Your task to perform on an android device: Open internet settings Image 0: 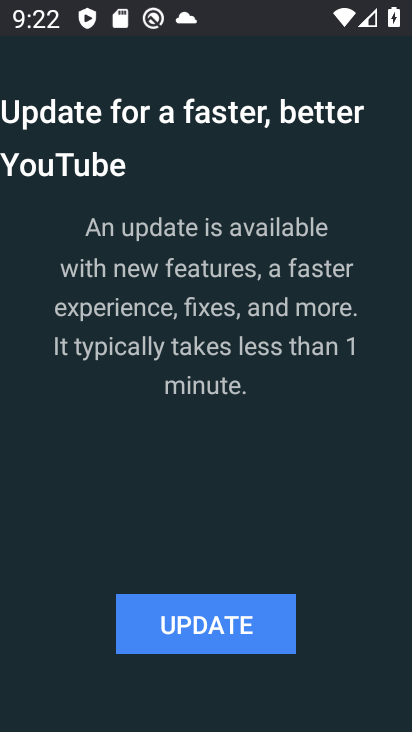
Step 0: press home button
Your task to perform on an android device: Open internet settings Image 1: 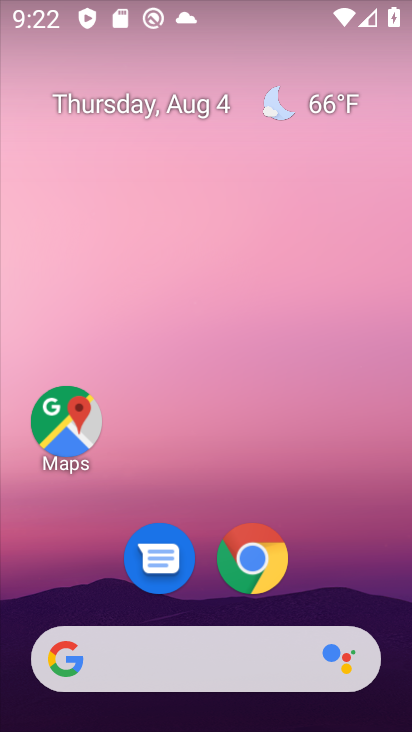
Step 1: drag from (351, 553) to (364, 166)
Your task to perform on an android device: Open internet settings Image 2: 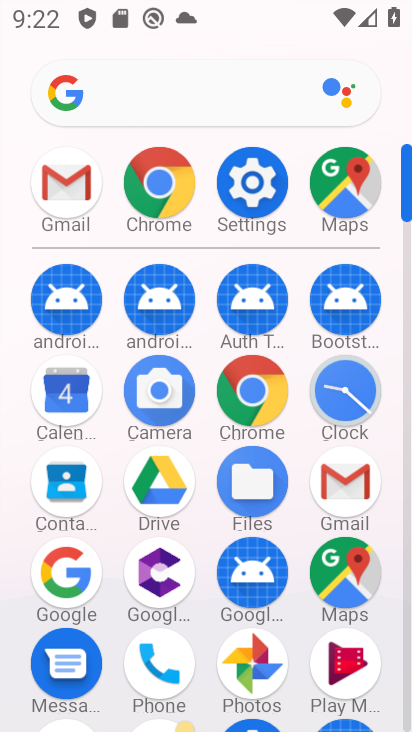
Step 2: drag from (199, 536) to (219, 284)
Your task to perform on an android device: Open internet settings Image 3: 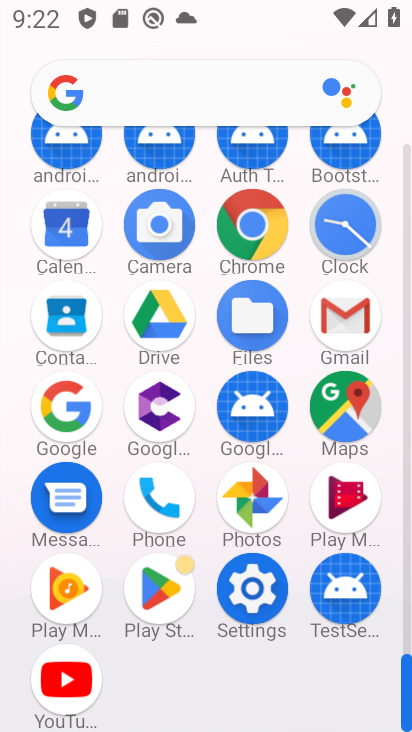
Step 3: click (250, 577)
Your task to perform on an android device: Open internet settings Image 4: 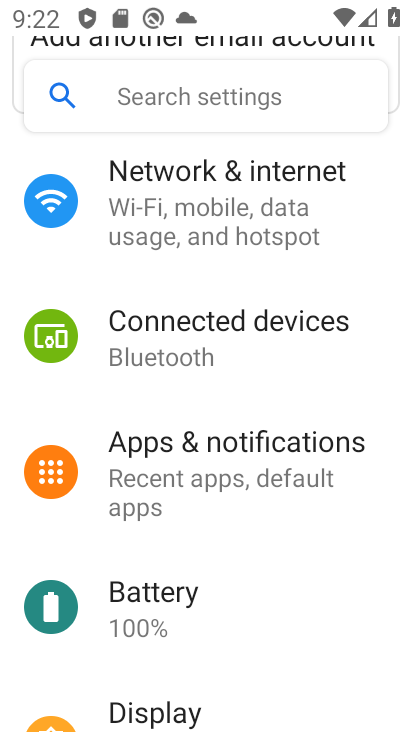
Step 4: click (265, 233)
Your task to perform on an android device: Open internet settings Image 5: 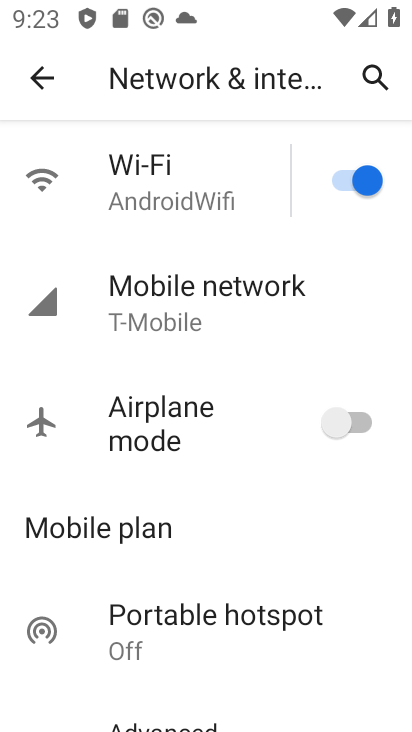
Step 5: drag from (238, 561) to (211, 140)
Your task to perform on an android device: Open internet settings Image 6: 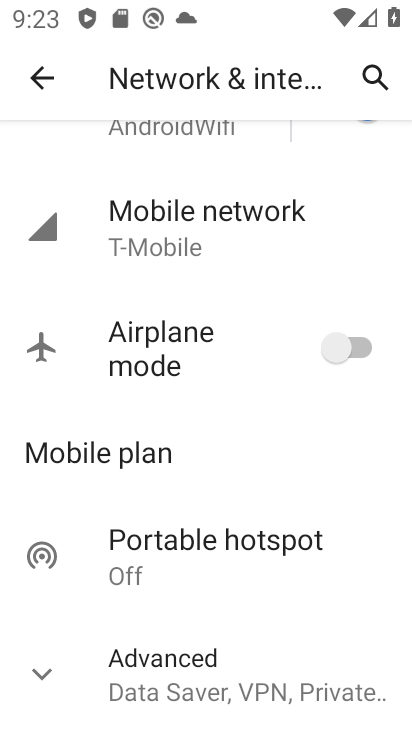
Step 6: click (165, 656)
Your task to perform on an android device: Open internet settings Image 7: 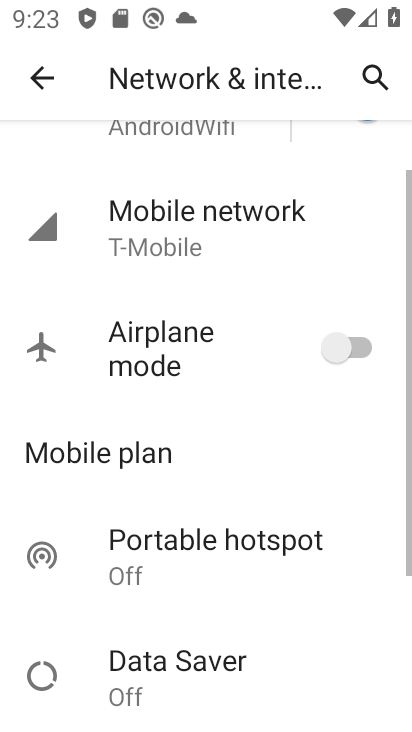
Step 7: task complete